Your task to perform on an android device: see sites visited before in the chrome app Image 0: 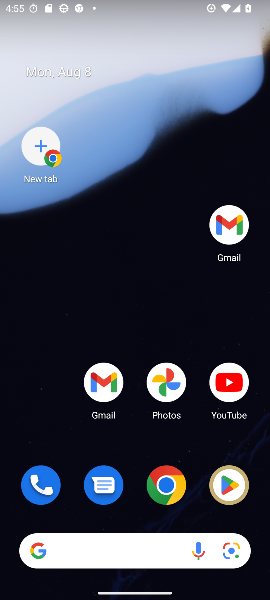
Step 0: drag from (180, 599) to (131, 282)
Your task to perform on an android device: see sites visited before in the chrome app Image 1: 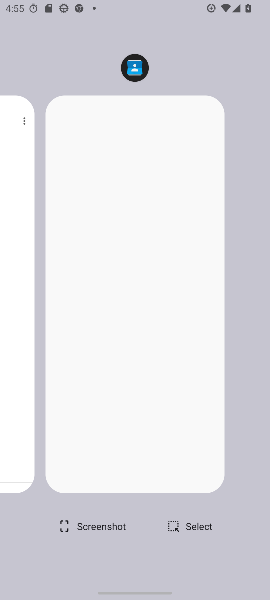
Step 1: drag from (156, 572) to (92, 114)
Your task to perform on an android device: see sites visited before in the chrome app Image 2: 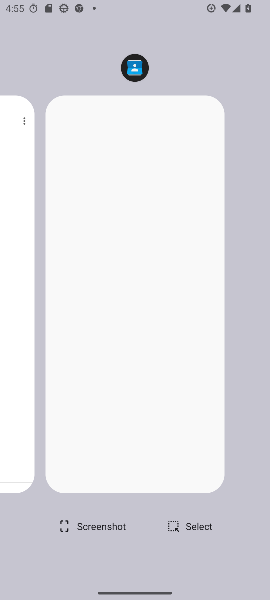
Step 2: press back button
Your task to perform on an android device: see sites visited before in the chrome app Image 3: 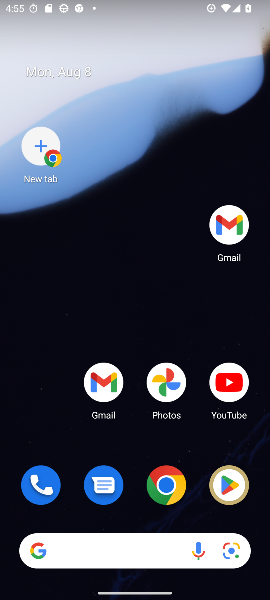
Step 3: drag from (190, 573) to (115, 195)
Your task to perform on an android device: see sites visited before in the chrome app Image 4: 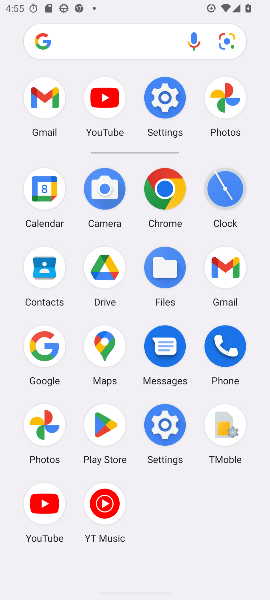
Step 4: drag from (204, 459) to (182, 237)
Your task to perform on an android device: see sites visited before in the chrome app Image 5: 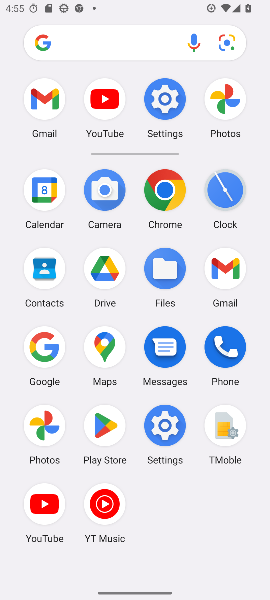
Step 5: click (167, 185)
Your task to perform on an android device: see sites visited before in the chrome app Image 6: 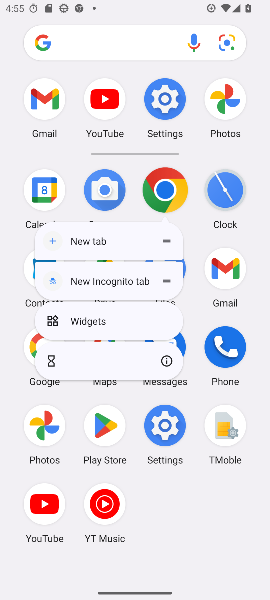
Step 6: click (167, 185)
Your task to perform on an android device: see sites visited before in the chrome app Image 7: 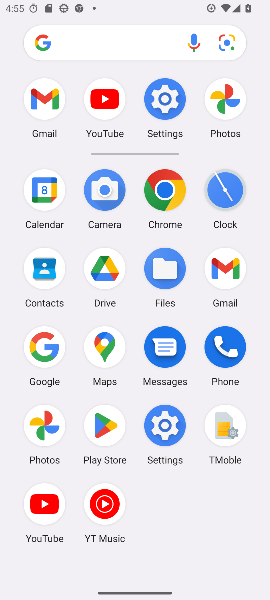
Step 7: click (167, 185)
Your task to perform on an android device: see sites visited before in the chrome app Image 8: 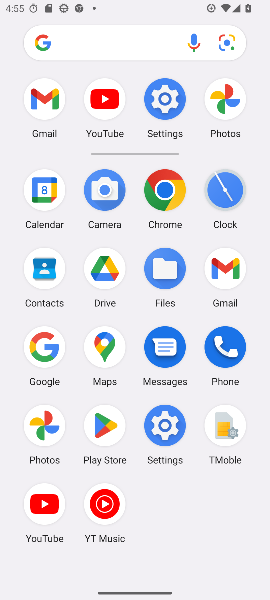
Step 8: click (167, 185)
Your task to perform on an android device: see sites visited before in the chrome app Image 9: 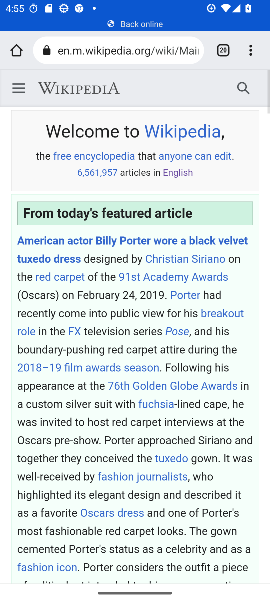
Step 9: drag from (251, 51) to (141, 298)
Your task to perform on an android device: see sites visited before in the chrome app Image 10: 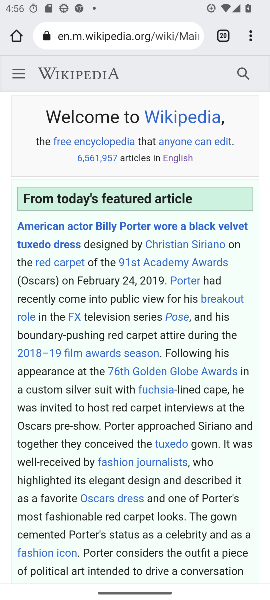
Step 10: click (141, 298)
Your task to perform on an android device: see sites visited before in the chrome app Image 11: 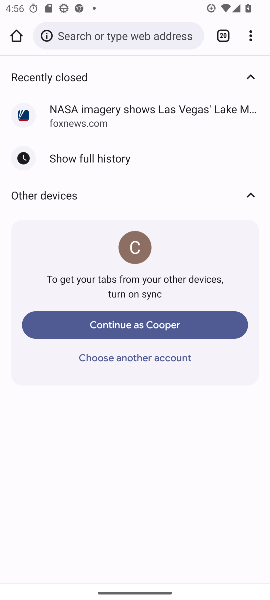
Step 11: task complete